Your task to perform on an android device: change the clock display to digital Image 0: 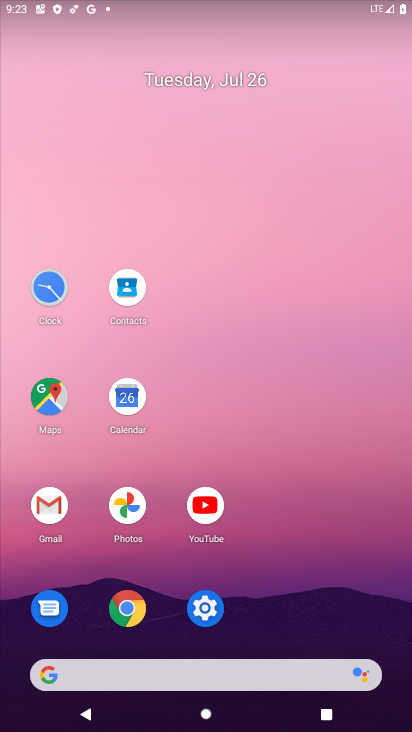
Step 0: click (50, 294)
Your task to perform on an android device: change the clock display to digital Image 1: 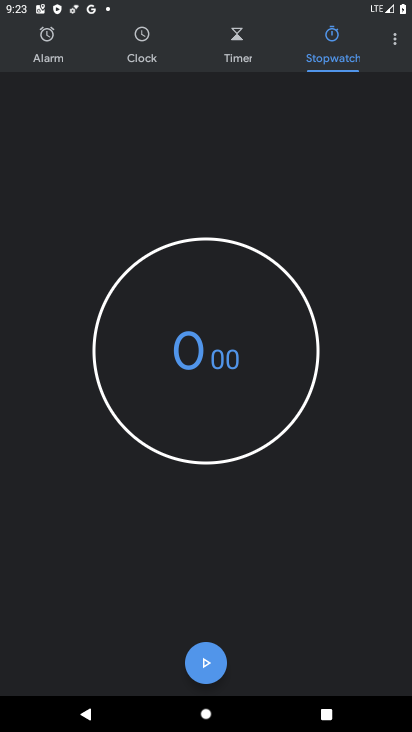
Step 1: click (396, 36)
Your task to perform on an android device: change the clock display to digital Image 2: 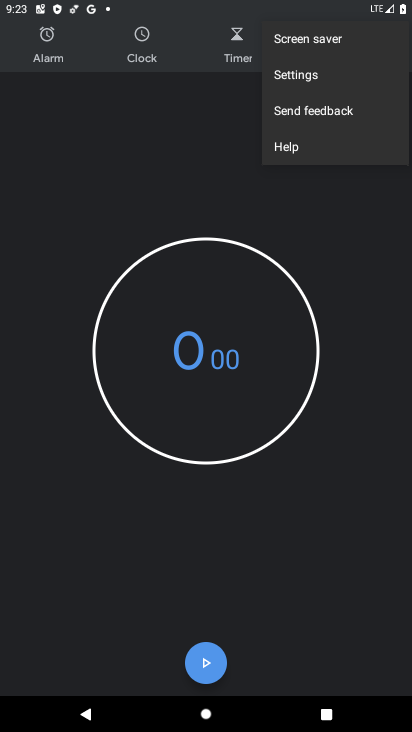
Step 2: click (295, 72)
Your task to perform on an android device: change the clock display to digital Image 3: 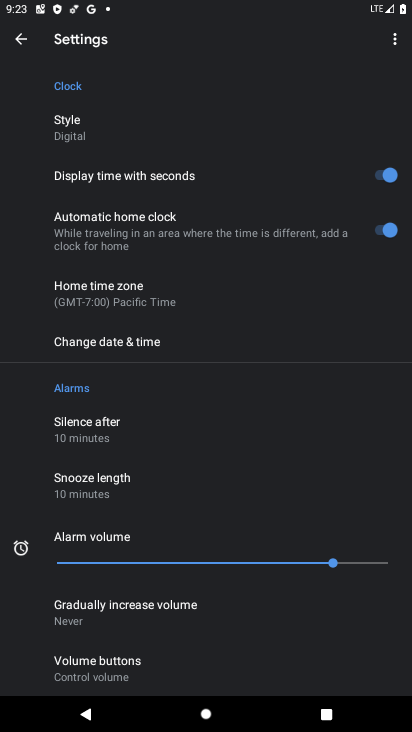
Step 3: click (73, 120)
Your task to perform on an android device: change the clock display to digital Image 4: 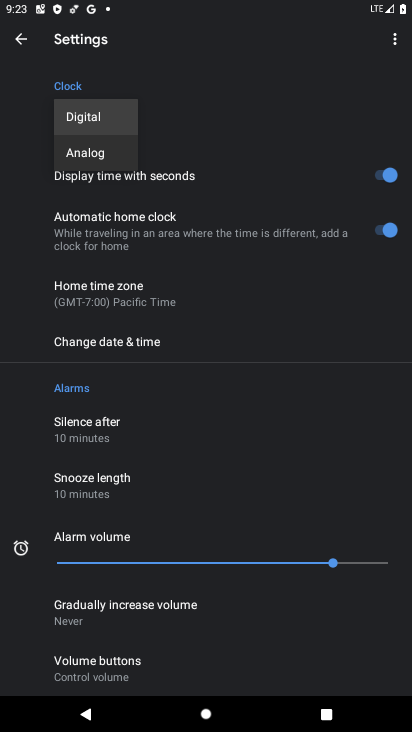
Step 4: click (95, 121)
Your task to perform on an android device: change the clock display to digital Image 5: 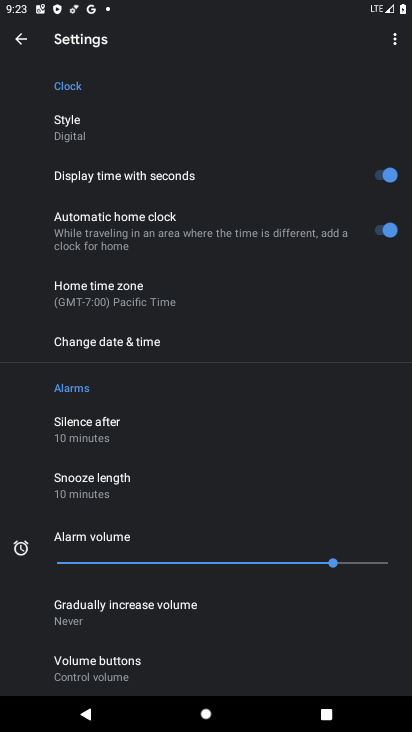
Step 5: task complete